Your task to perform on an android device: Open Google Chrome Image 0: 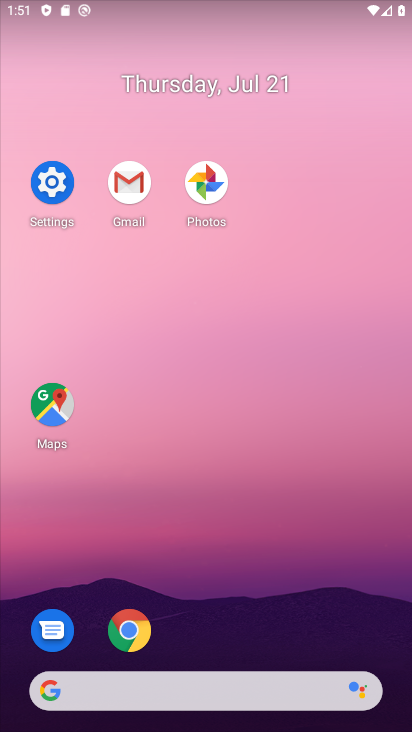
Step 0: click (124, 641)
Your task to perform on an android device: Open Google Chrome Image 1: 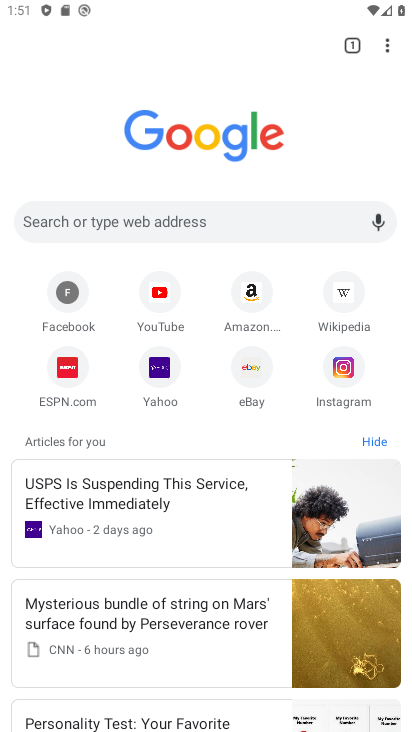
Step 1: task complete